Your task to perform on an android device: find which apps use the phone's location Image 0: 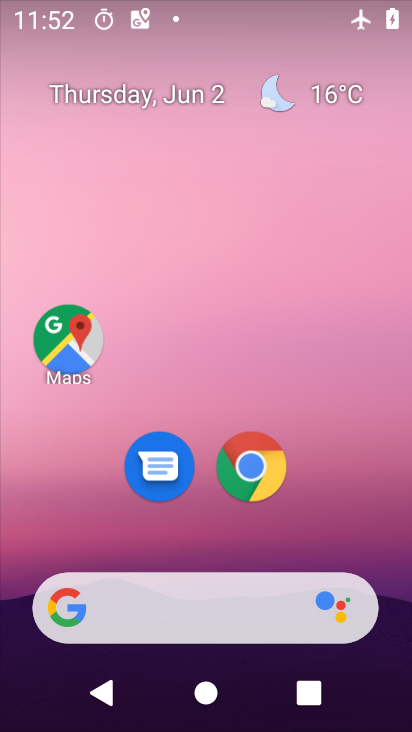
Step 0: drag from (203, 470) to (211, 209)
Your task to perform on an android device: find which apps use the phone's location Image 1: 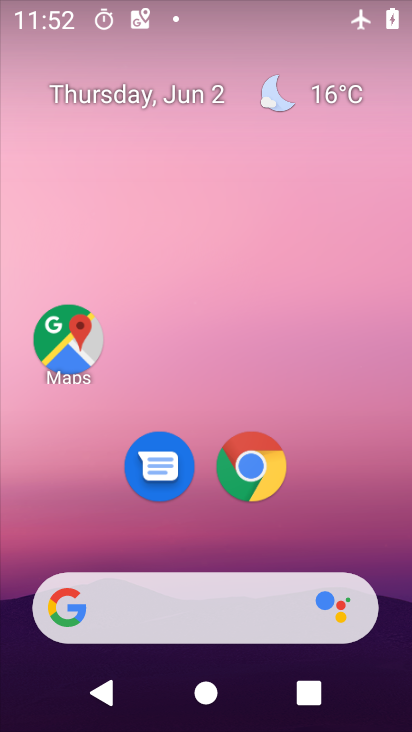
Step 1: drag from (205, 535) to (211, 112)
Your task to perform on an android device: find which apps use the phone's location Image 2: 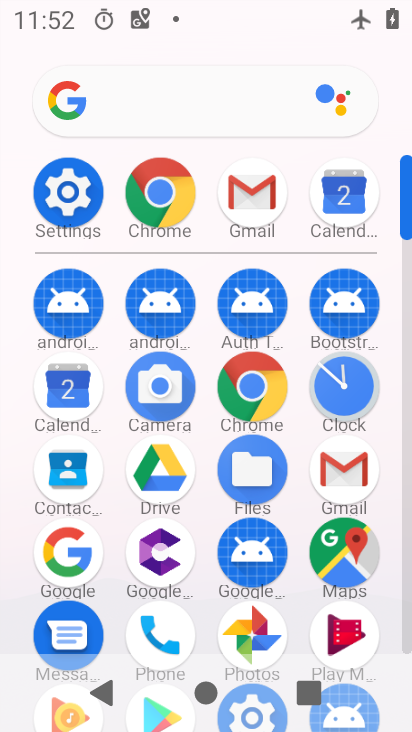
Step 2: click (67, 217)
Your task to perform on an android device: find which apps use the phone's location Image 3: 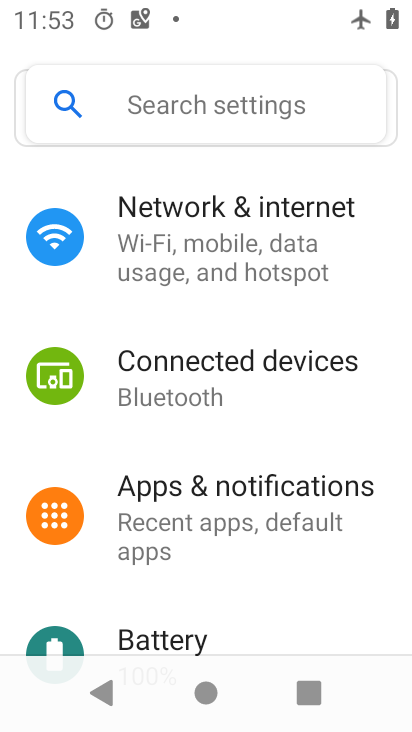
Step 3: drag from (225, 572) to (206, 127)
Your task to perform on an android device: find which apps use the phone's location Image 4: 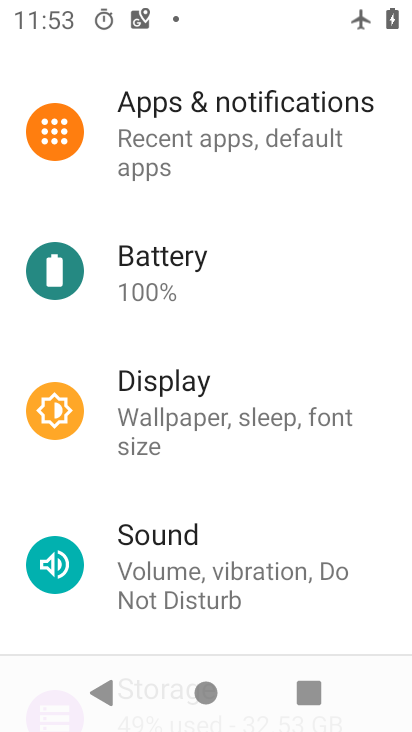
Step 4: drag from (216, 561) to (240, 160)
Your task to perform on an android device: find which apps use the phone's location Image 5: 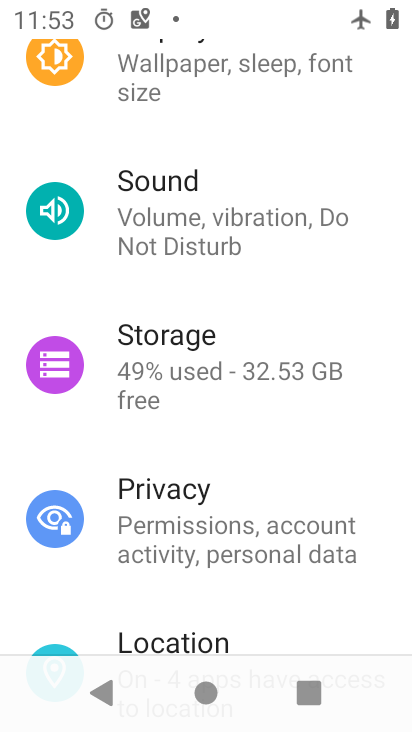
Step 5: drag from (230, 511) to (234, 215)
Your task to perform on an android device: find which apps use the phone's location Image 6: 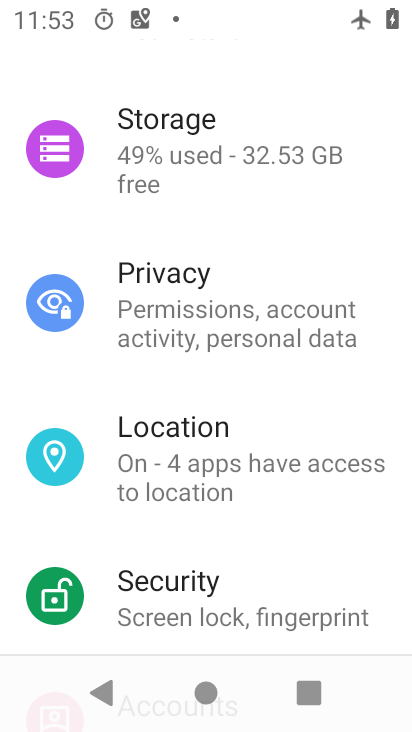
Step 6: click (205, 447)
Your task to perform on an android device: find which apps use the phone's location Image 7: 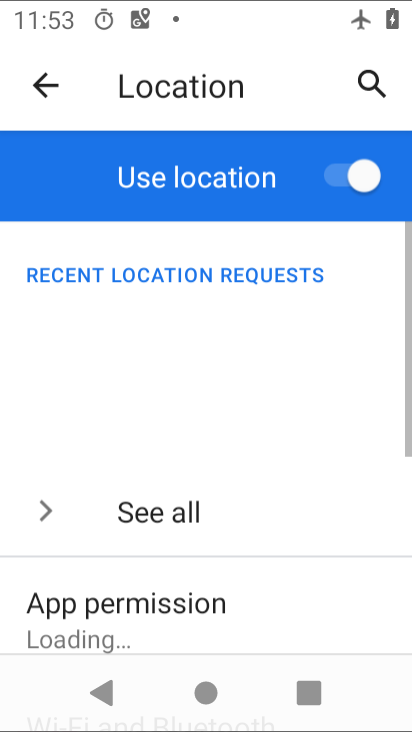
Step 7: drag from (258, 286) to (229, 230)
Your task to perform on an android device: find which apps use the phone's location Image 8: 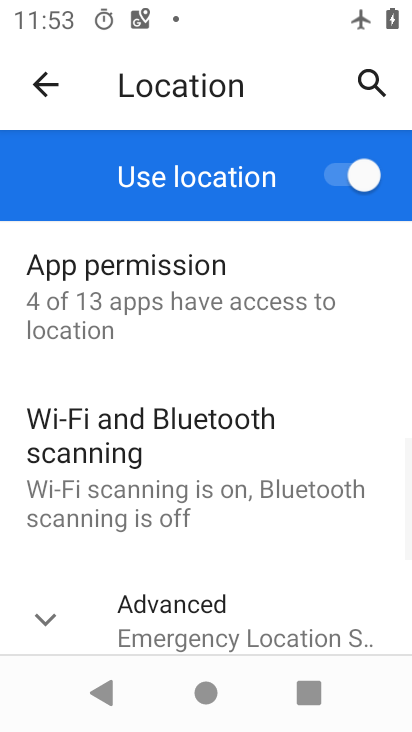
Step 8: click (242, 558)
Your task to perform on an android device: find which apps use the phone's location Image 9: 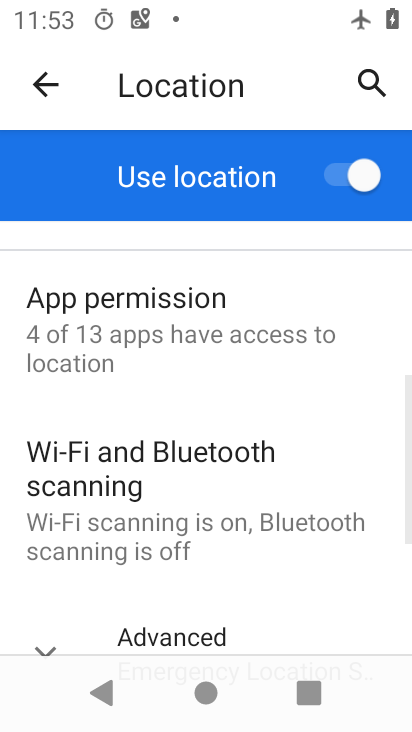
Step 9: drag from (252, 427) to (253, 499)
Your task to perform on an android device: find which apps use the phone's location Image 10: 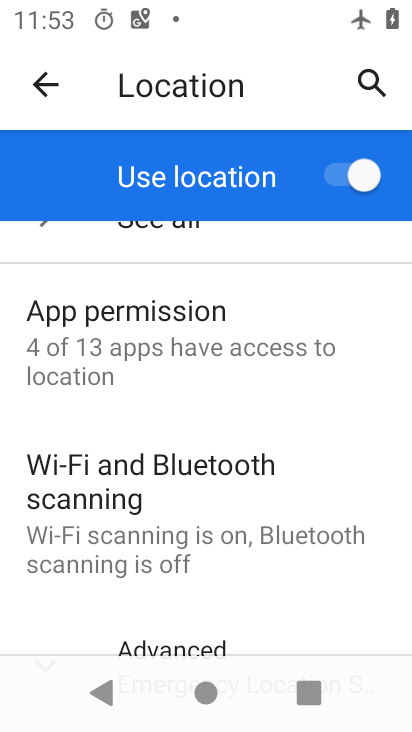
Step 10: click (186, 353)
Your task to perform on an android device: find which apps use the phone's location Image 11: 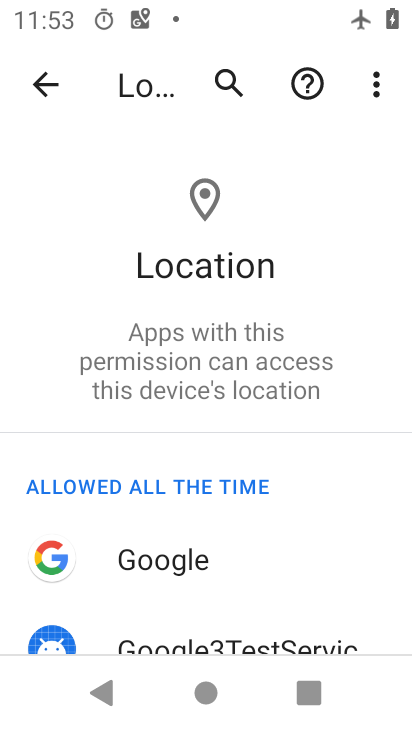
Step 11: task complete